Your task to perform on an android device: View the shopping cart on walmart. Add apple airpods to the cart on walmart Image 0: 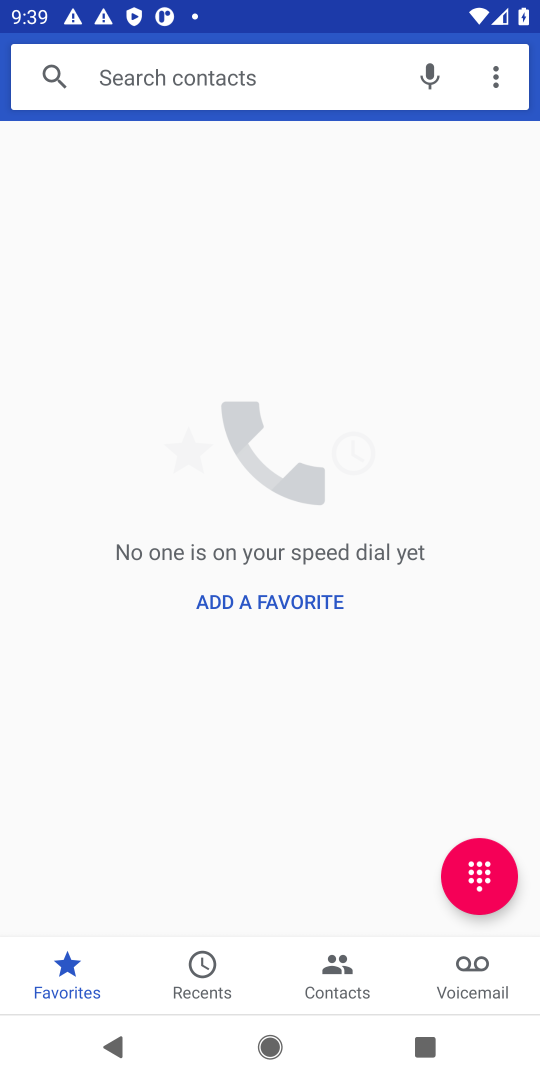
Step 0: press home button
Your task to perform on an android device: View the shopping cart on walmart. Add apple airpods to the cart on walmart Image 1: 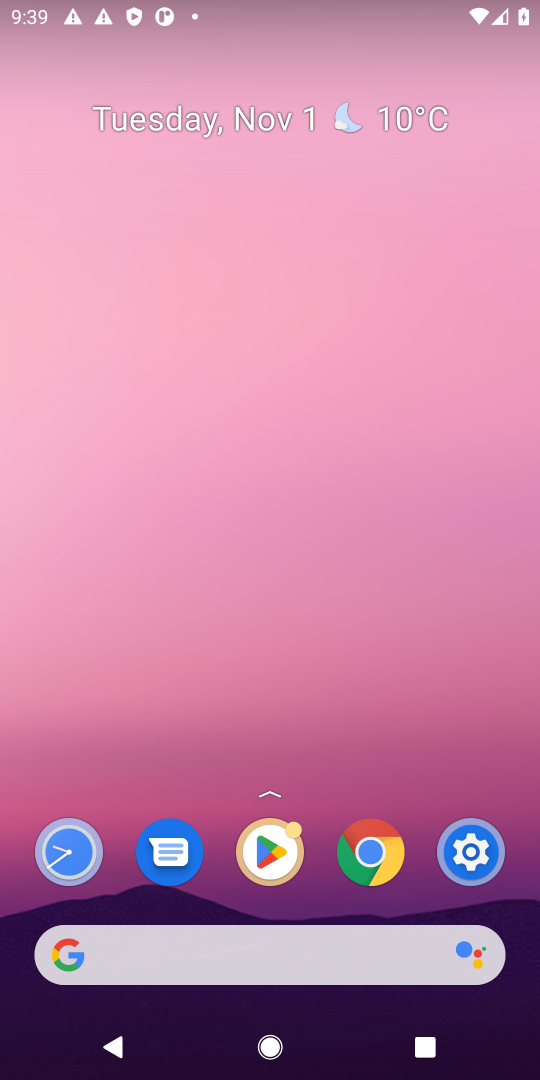
Step 1: click (62, 974)
Your task to perform on an android device: View the shopping cart on walmart. Add apple airpods to the cart on walmart Image 2: 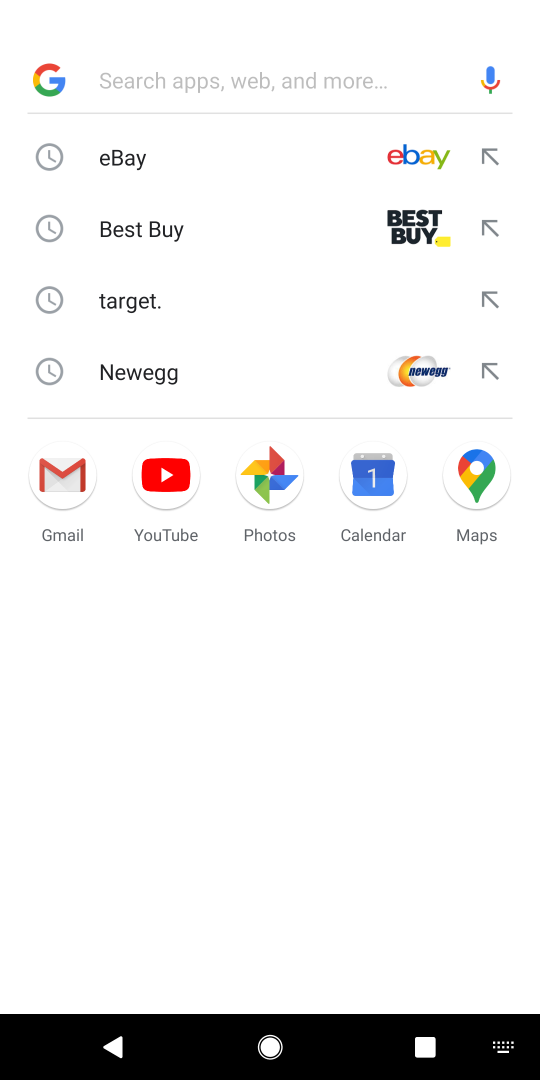
Step 2: type " walmart"
Your task to perform on an android device: View the shopping cart on walmart. Add apple airpods to the cart on walmart Image 3: 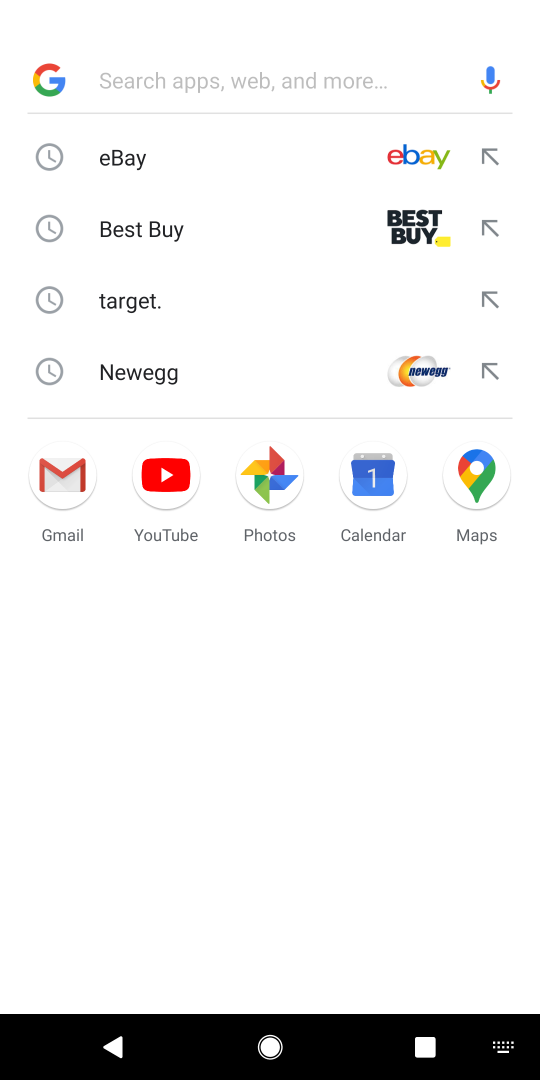
Step 3: click (112, 80)
Your task to perform on an android device: View the shopping cart on walmart. Add apple airpods to the cart on walmart Image 4: 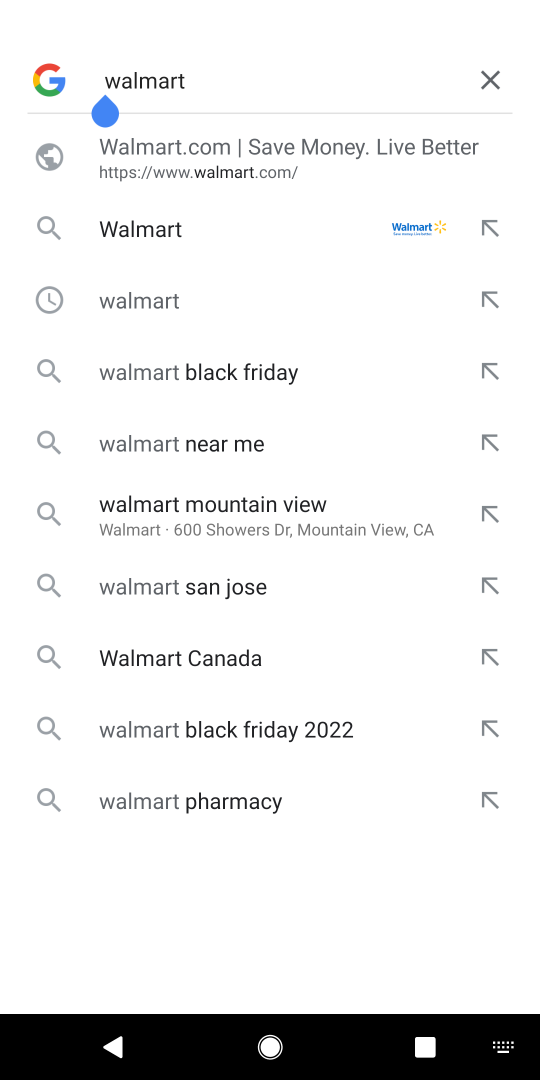
Step 4: press enter
Your task to perform on an android device: View the shopping cart on walmart. Add apple airpods to the cart on walmart Image 5: 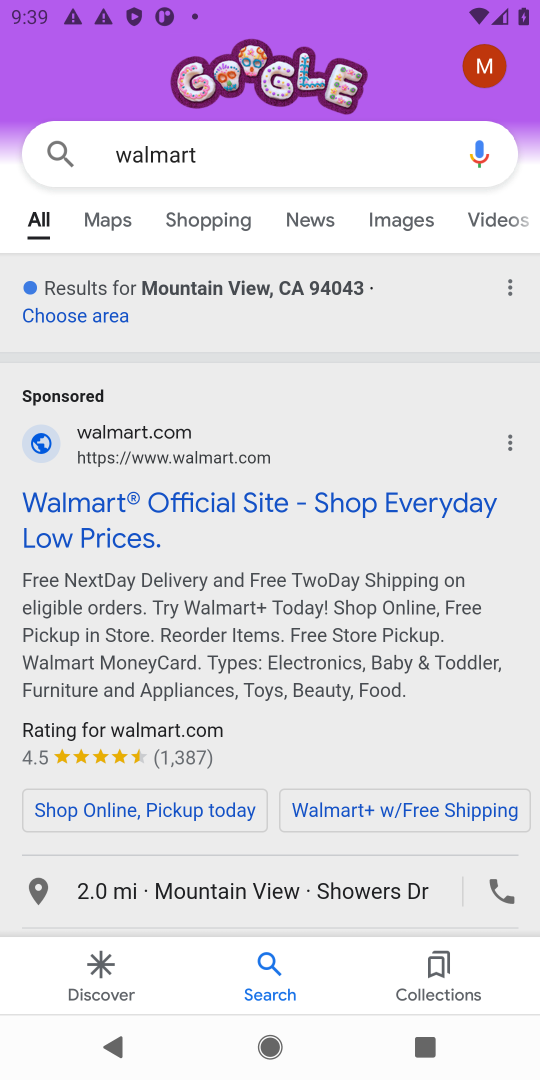
Step 5: drag from (238, 840) to (240, 435)
Your task to perform on an android device: View the shopping cart on walmart. Add apple airpods to the cart on walmart Image 6: 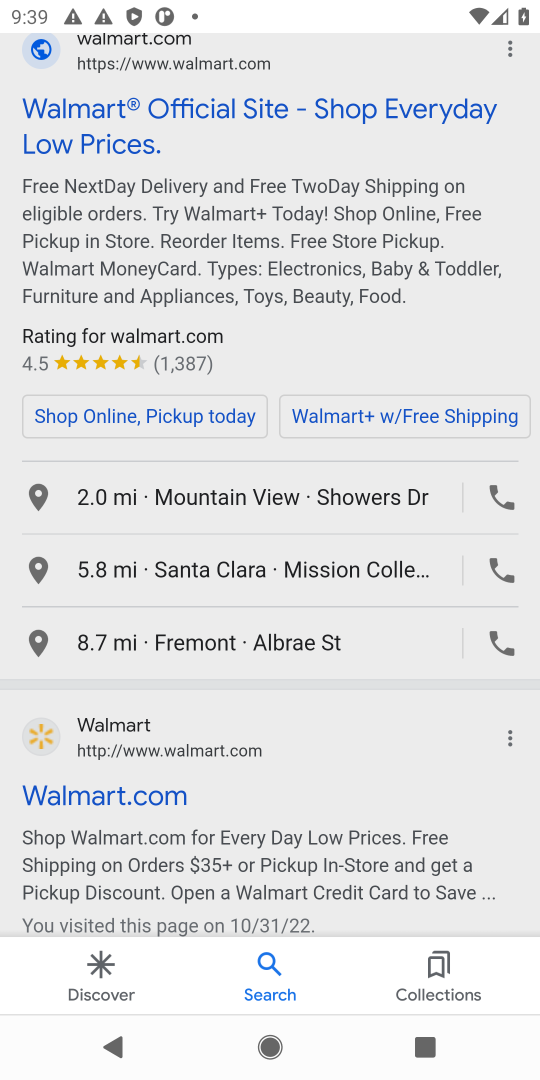
Step 6: click (99, 797)
Your task to perform on an android device: View the shopping cart on walmart. Add apple airpods to the cart on walmart Image 7: 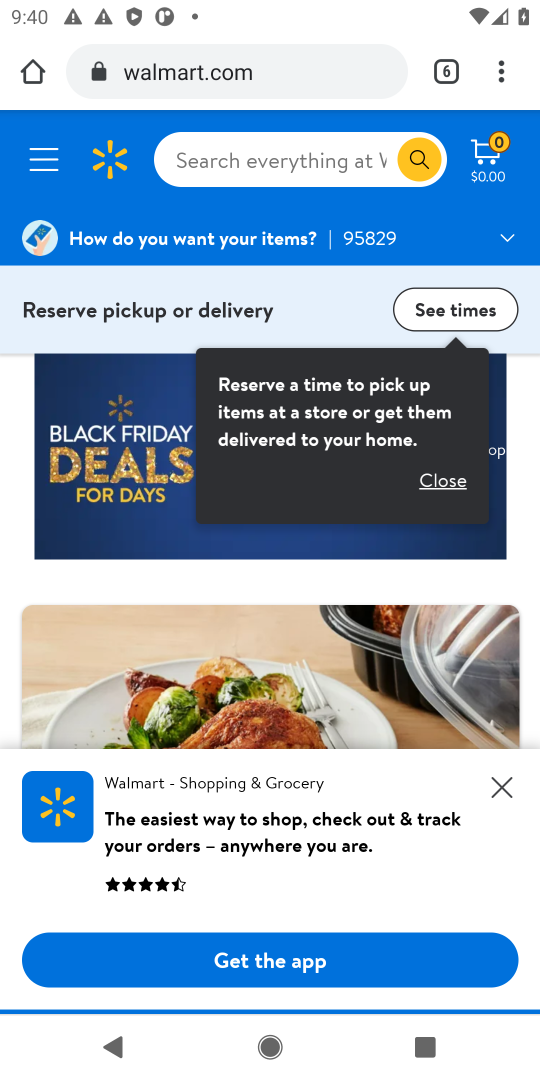
Step 7: click (219, 158)
Your task to perform on an android device: View the shopping cart on walmart. Add apple airpods to the cart on walmart Image 8: 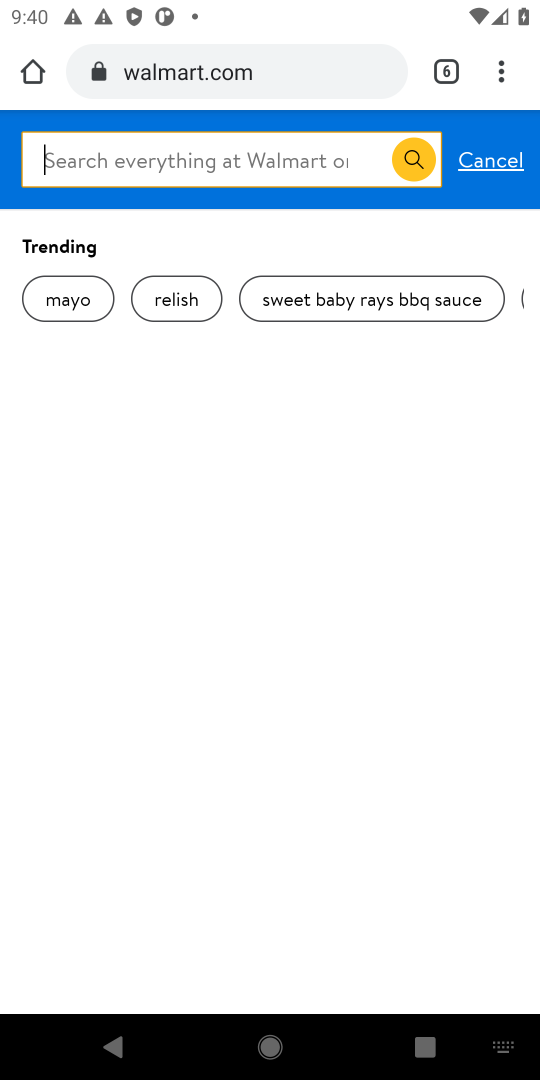
Step 8: type "apple airpods"
Your task to perform on an android device: View the shopping cart on walmart. Add apple airpods to the cart on walmart Image 9: 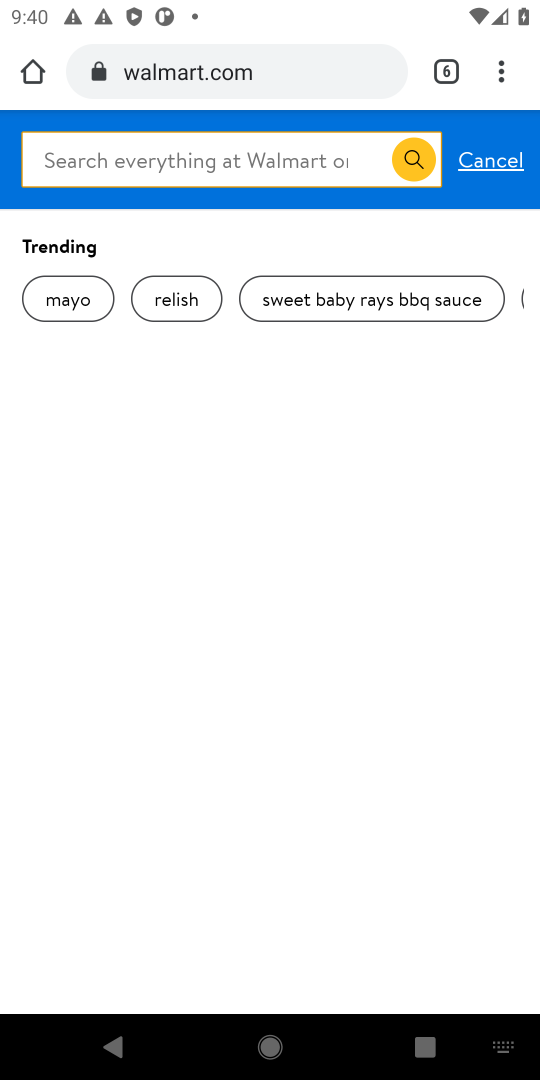
Step 9: click (117, 156)
Your task to perform on an android device: View the shopping cart on walmart. Add apple airpods to the cart on walmart Image 10: 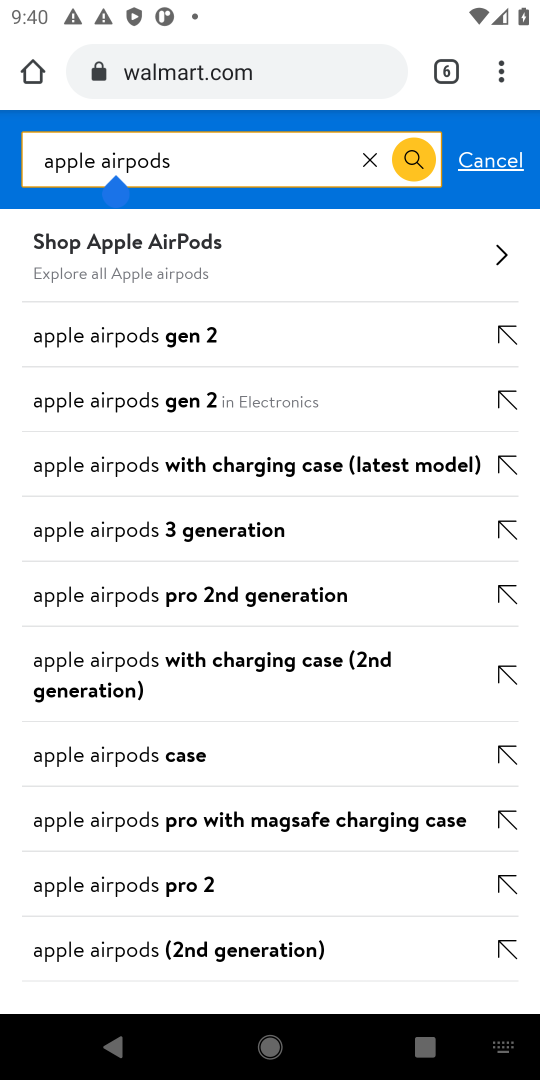
Step 10: press enter
Your task to perform on an android device: View the shopping cart on walmart. Add apple airpods to the cart on walmart Image 11: 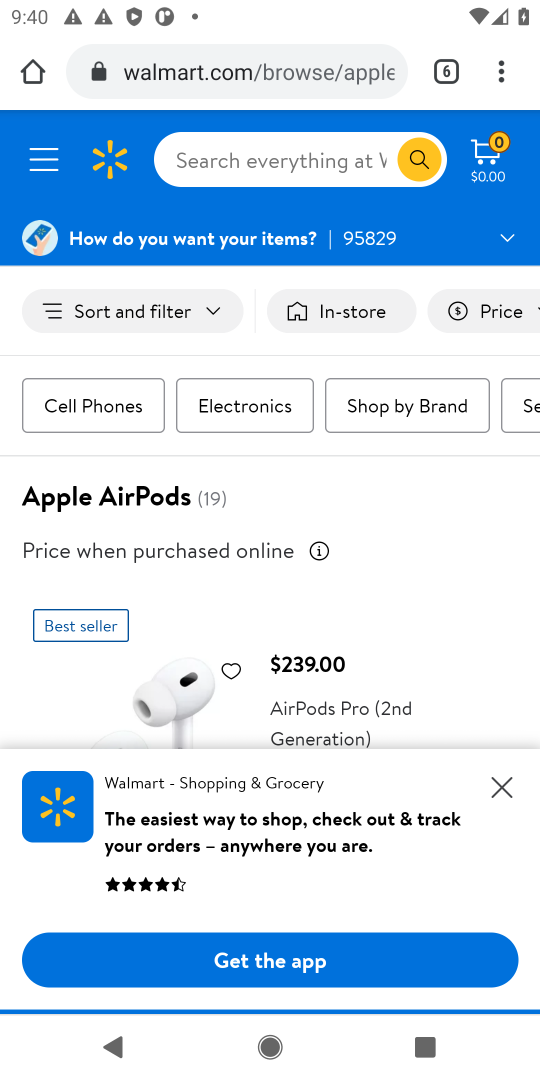
Step 11: click (505, 780)
Your task to perform on an android device: View the shopping cart on walmart. Add apple airpods to the cart on walmart Image 12: 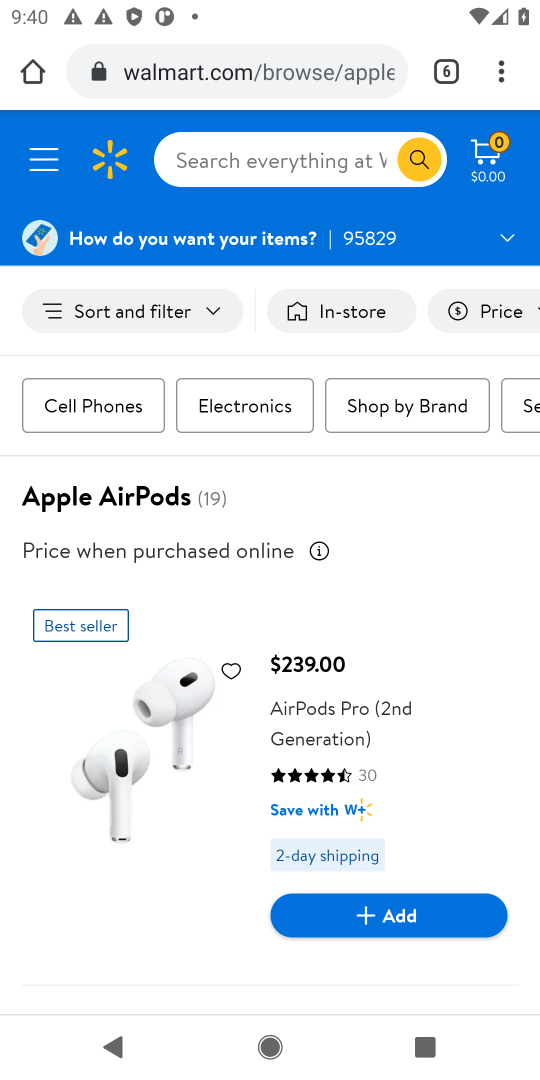
Step 12: click (404, 908)
Your task to perform on an android device: View the shopping cart on walmart. Add apple airpods to the cart on walmart Image 13: 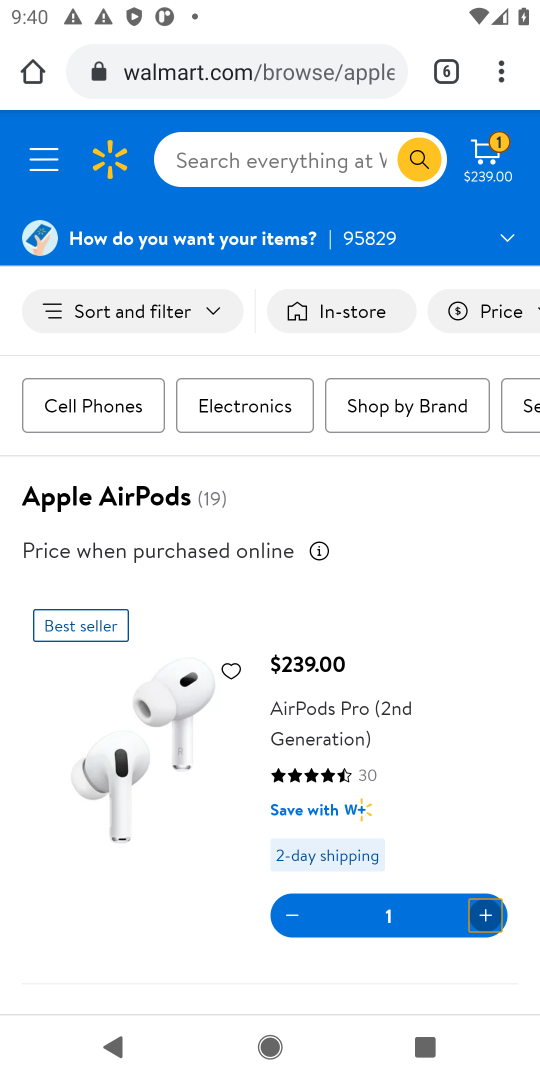
Step 13: drag from (187, 863) to (242, 557)
Your task to perform on an android device: View the shopping cart on walmart. Add apple airpods to the cart on walmart Image 14: 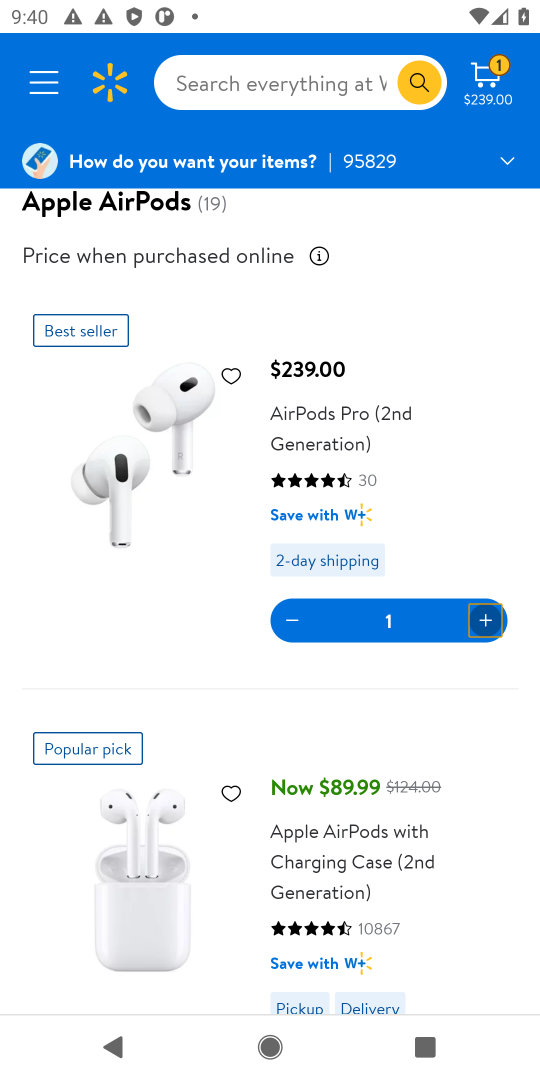
Step 14: click (489, 62)
Your task to perform on an android device: View the shopping cart on walmart. Add apple airpods to the cart on walmart Image 15: 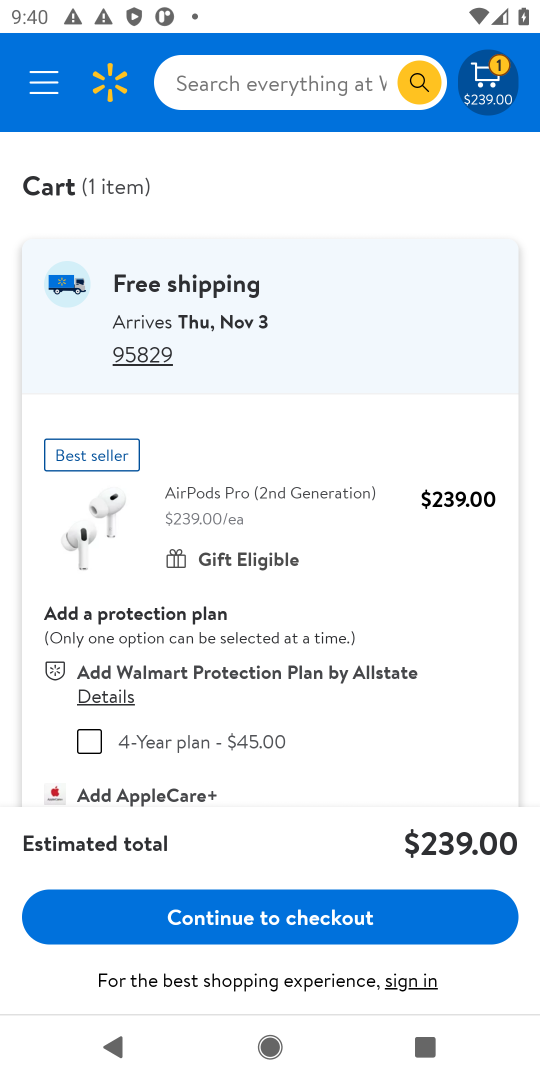
Step 15: task complete